Your task to perform on an android device: check data usage Image 0: 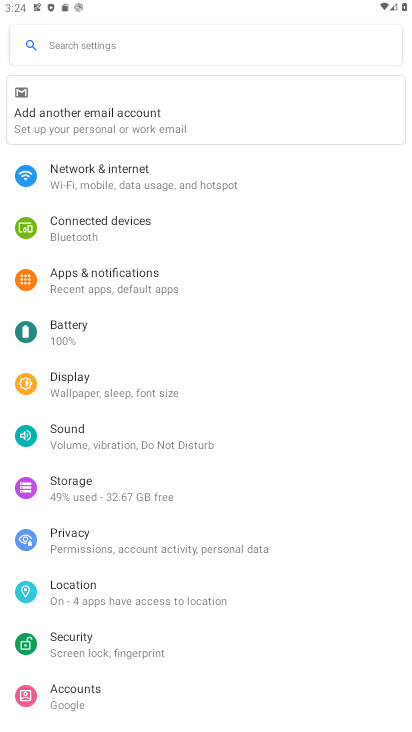
Step 0: press home button
Your task to perform on an android device: check data usage Image 1: 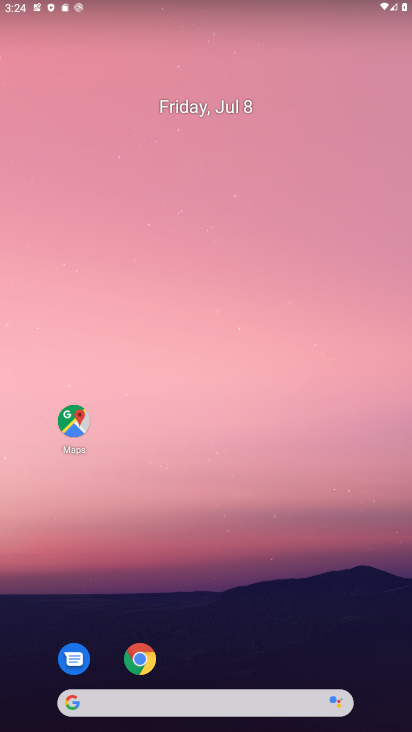
Step 1: drag from (214, 498) to (214, 236)
Your task to perform on an android device: check data usage Image 2: 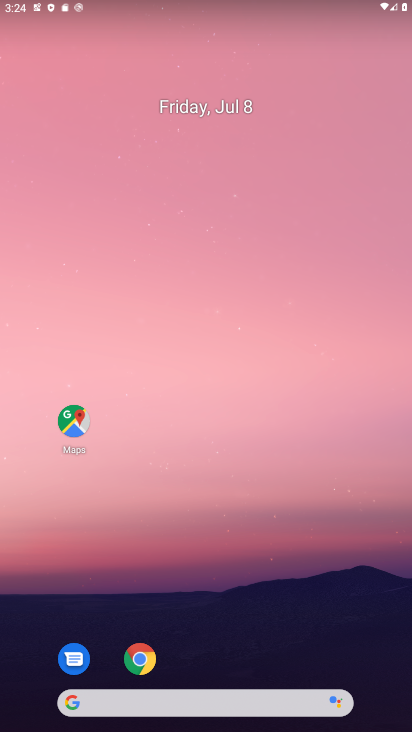
Step 2: drag from (188, 668) to (193, 201)
Your task to perform on an android device: check data usage Image 3: 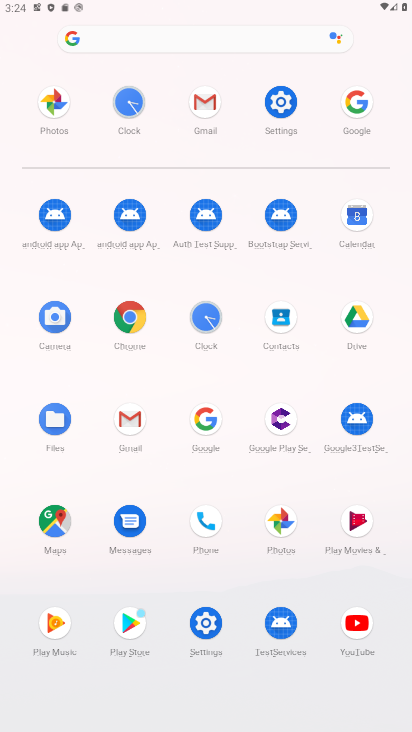
Step 3: click (272, 109)
Your task to perform on an android device: check data usage Image 4: 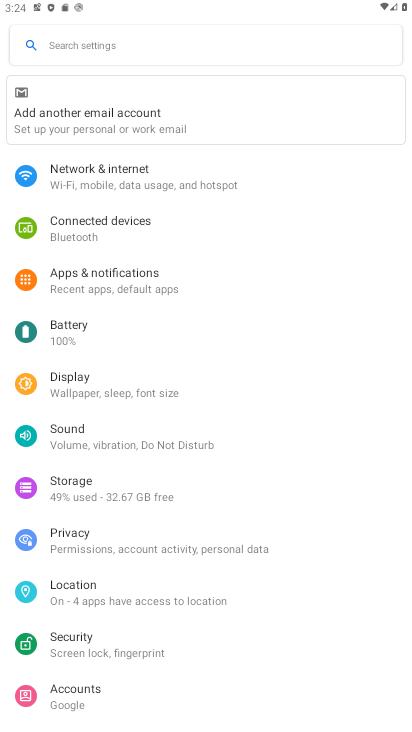
Step 4: click (134, 195)
Your task to perform on an android device: check data usage Image 5: 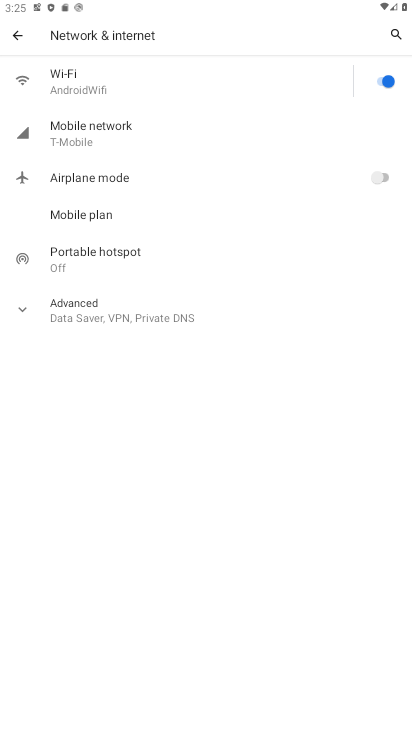
Step 5: click (118, 145)
Your task to perform on an android device: check data usage Image 6: 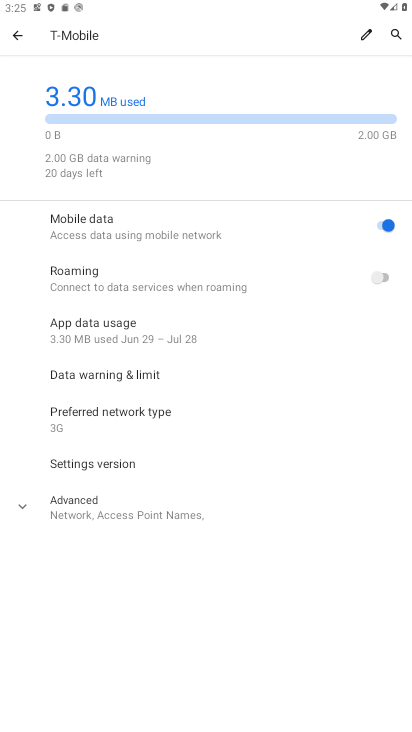
Step 6: click (187, 335)
Your task to perform on an android device: check data usage Image 7: 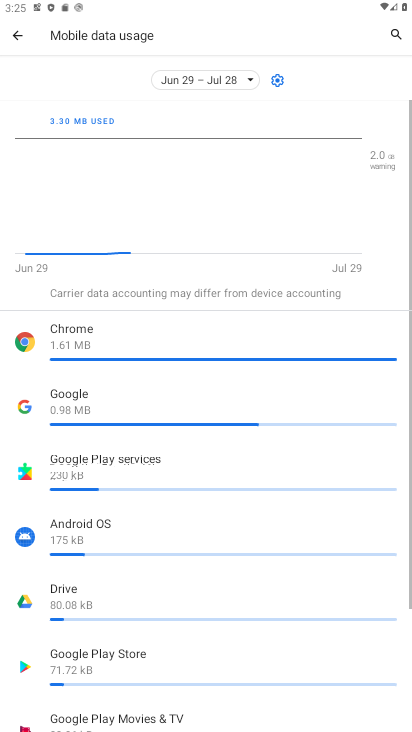
Step 7: task complete